Your task to perform on an android device: open chrome privacy settings Image 0: 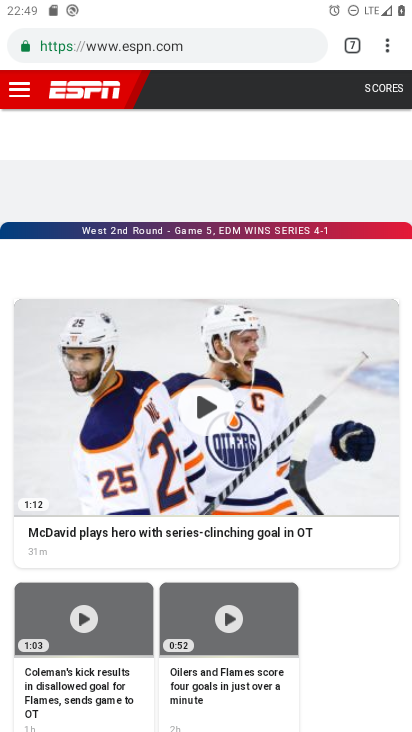
Step 0: click (391, 51)
Your task to perform on an android device: open chrome privacy settings Image 1: 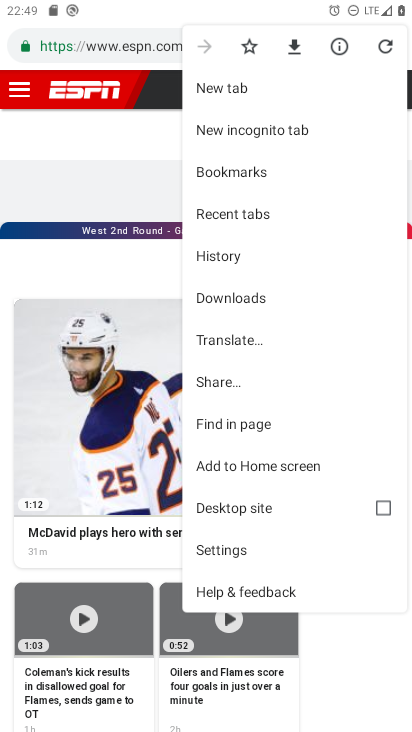
Step 1: click (255, 550)
Your task to perform on an android device: open chrome privacy settings Image 2: 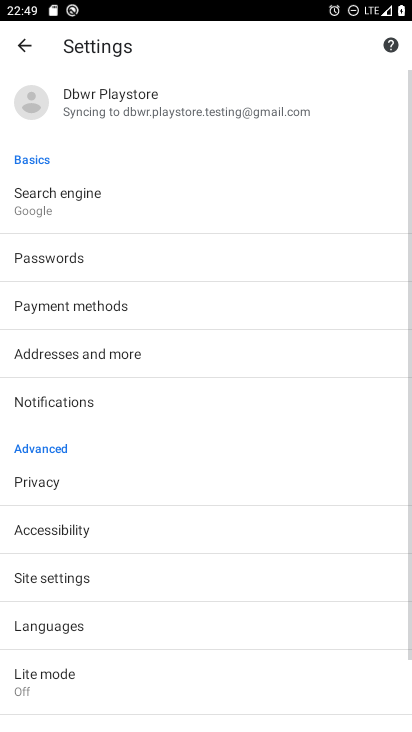
Step 2: click (16, 474)
Your task to perform on an android device: open chrome privacy settings Image 3: 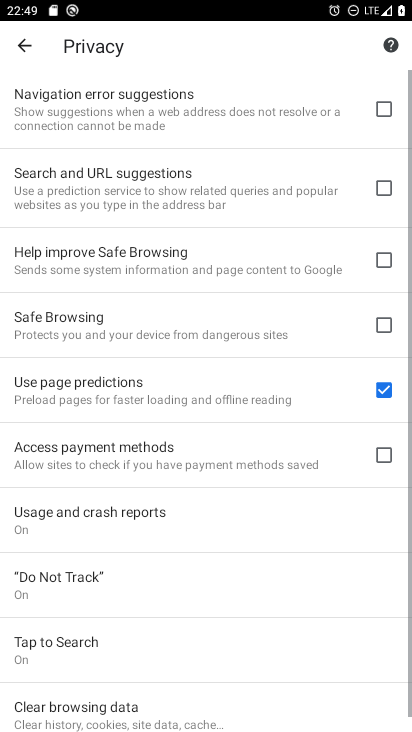
Step 3: task complete